Your task to perform on an android device: toggle notifications settings in the gmail app Image 0: 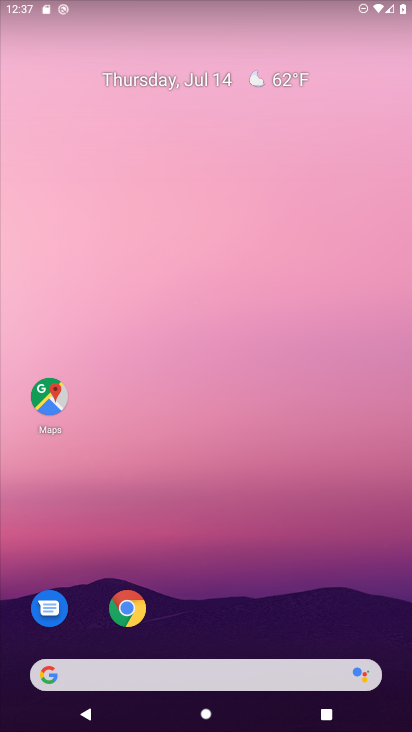
Step 0: drag from (231, 730) to (217, 471)
Your task to perform on an android device: toggle notifications settings in the gmail app Image 1: 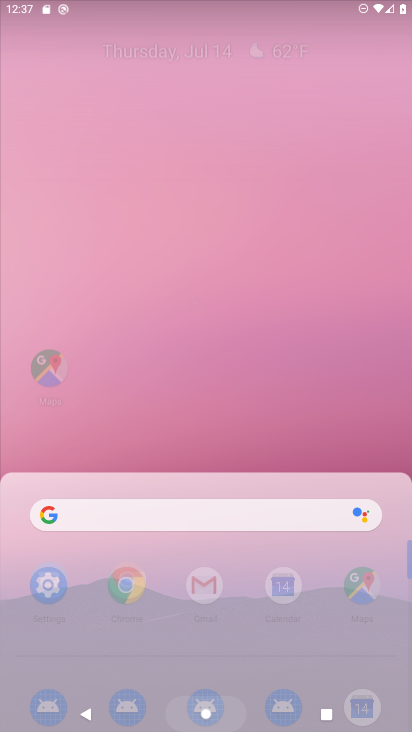
Step 1: click (192, 56)
Your task to perform on an android device: toggle notifications settings in the gmail app Image 2: 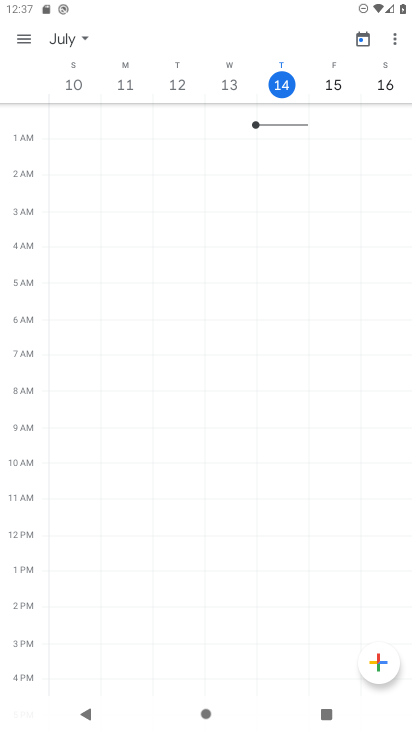
Step 2: press home button
Your task to perform on an android device: toggle notifications settings in the gmail app Image 3: 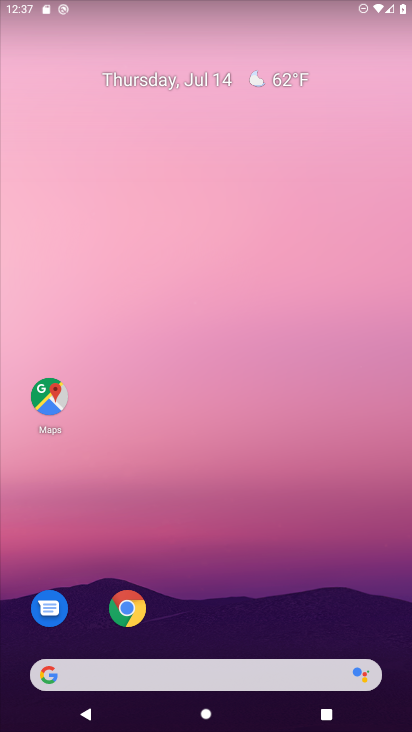
Step 3: drag from (235, 726) to (201, 78)
Your task to perform on an android device: toggle notifications settings in the gmail app Image 4: 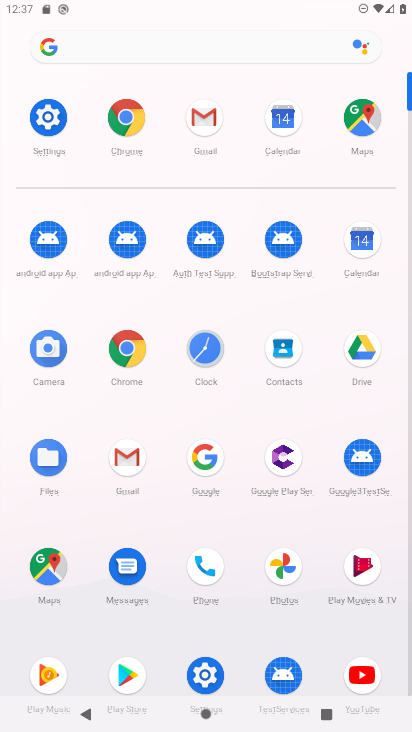
Step 4: click (124, 458)
Your task to perform on an android device: toggle notifications settings in the gmail app Image 5: 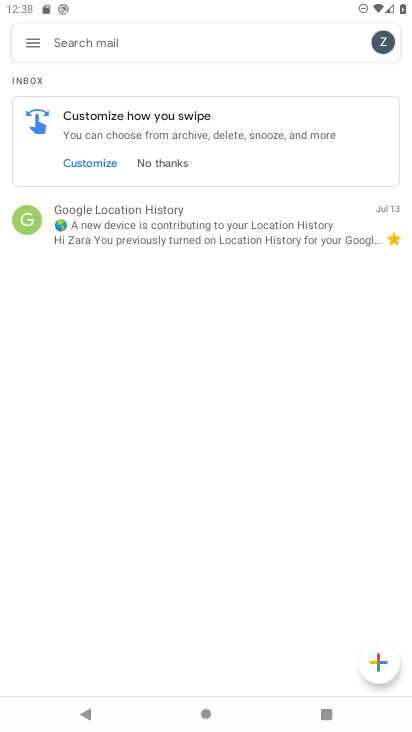
Step 5: click (33, 39)
Your task to perform on an android device: toggle notifications settings in the gmail app Image 6: 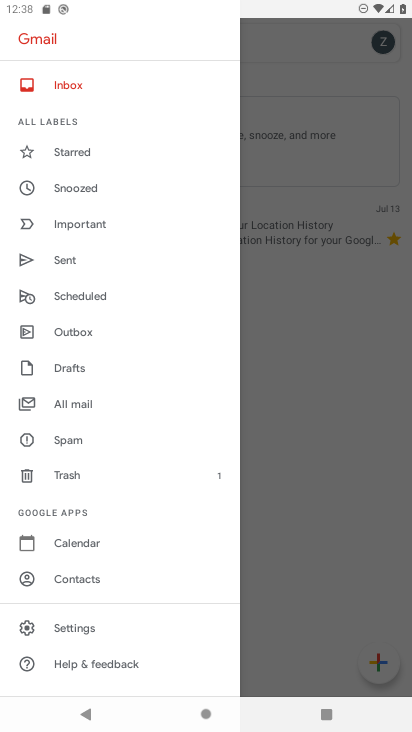
Step 6: click (80, 629)
Your task to perform on an android device: toggle notifications settings in the gmail app Image 7: 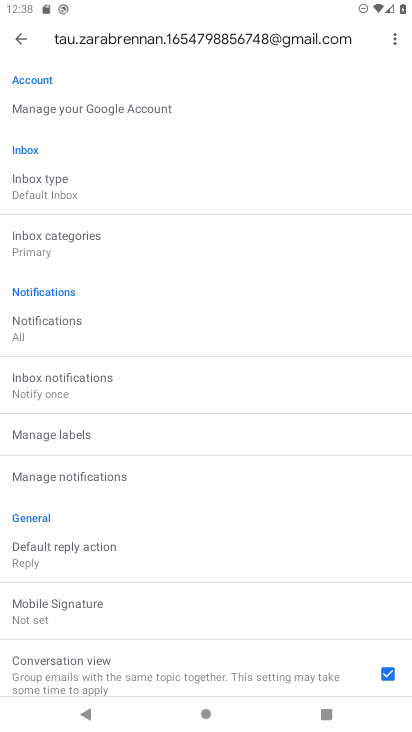
Step 7: click (29, 324)
Your task to perform on an android device: toggle notifications settings in the gmail app Image 8: 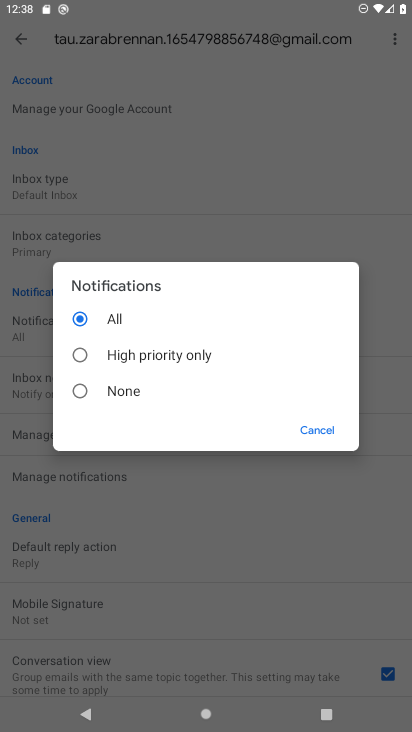
Step 8: click (84, 391)
Your task to perform on an android device: toggle notifications settings in the gmail app Image 9: 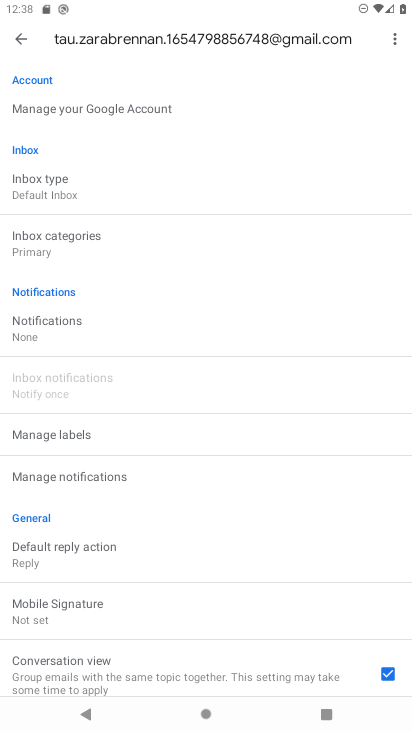
Step 9: task complete